Your task to perform on an android device: Go to CNN.com Image 0: 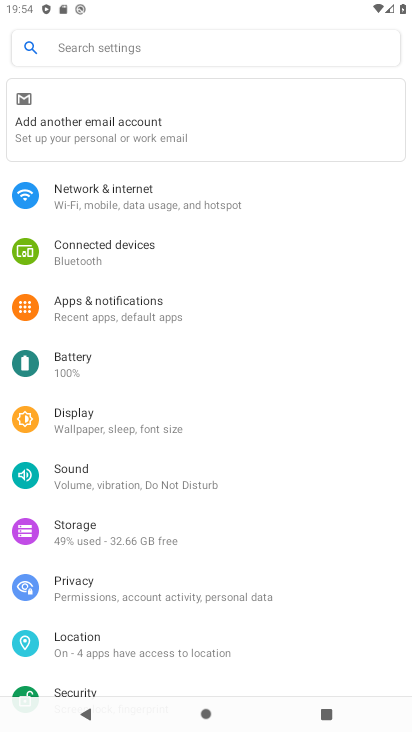
Step 0: press home button
Your task to perform on an android device: Go to CNN.com Image 1: 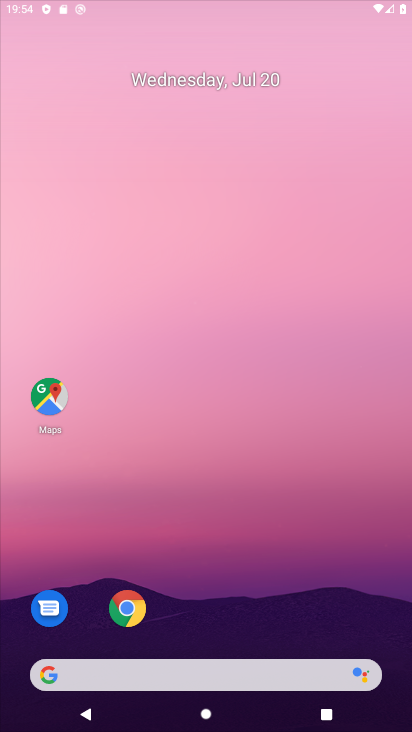
Step 1: drag from (274, 621) to (243, 112)
Your task to perform on an android device: Go to CNN.com Image 2: 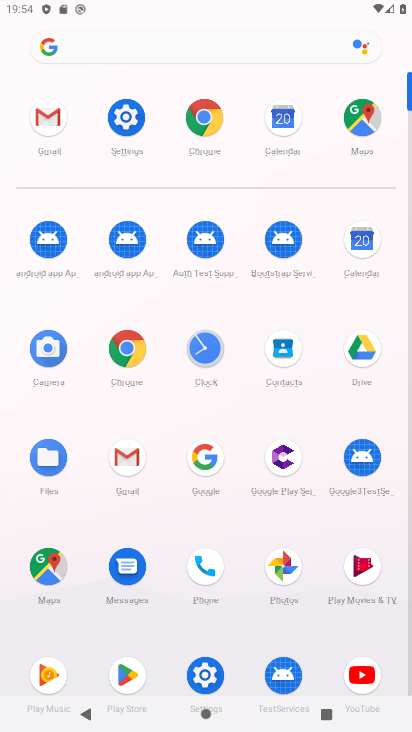
Step 2: click (125, 353)
Your task to perform on an android device: Go to CNN.com Image 3: 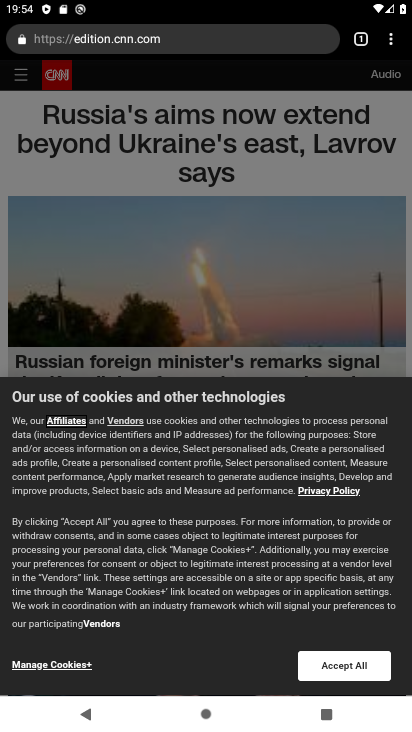
Step 3: task complete